Your task to perform on an android device: Go to privacy settings Image 0: 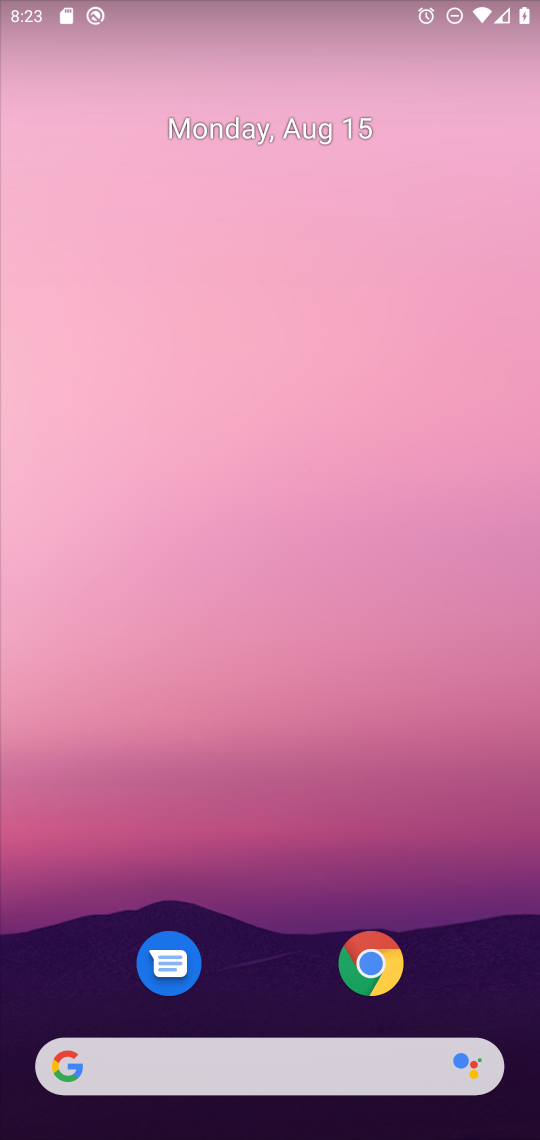
Step 0: drag from (280, 1012) to (246, 0)
Your task to perform on an android device: Go to privacy settings Image 1: 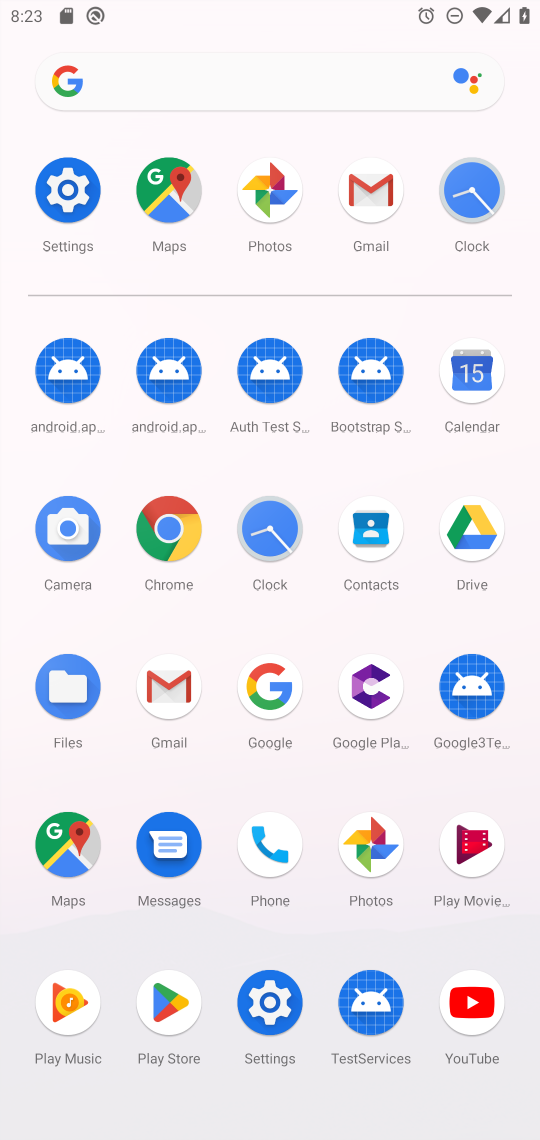
Step 1: click (85, 200)
Your task to perform on an android device: Go to privacy settings Image 2: 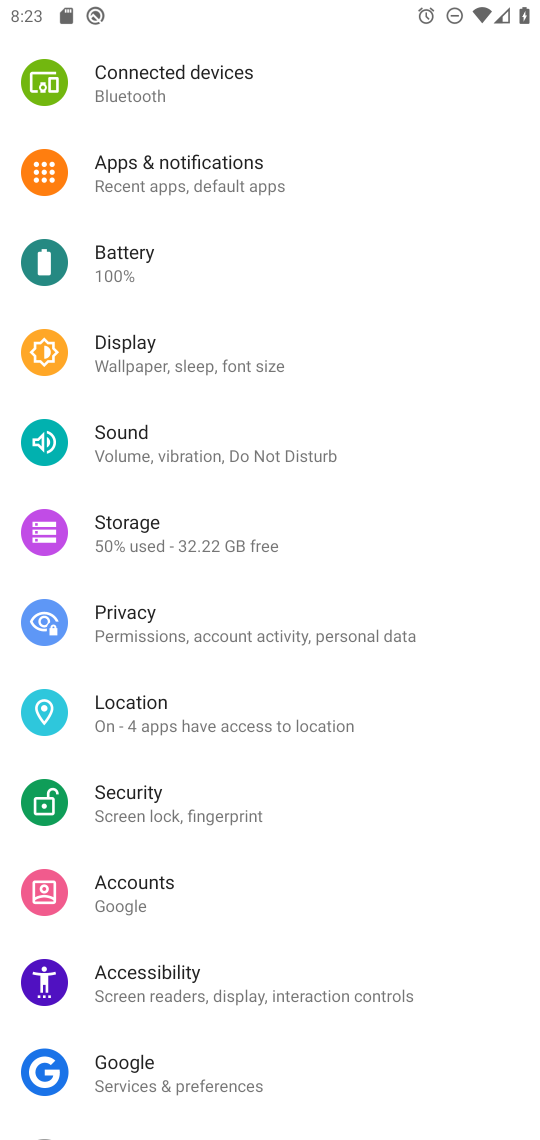
Step 2: click (207, 625)
Your task to perform on an android device: Go to privacy settings Image 3: 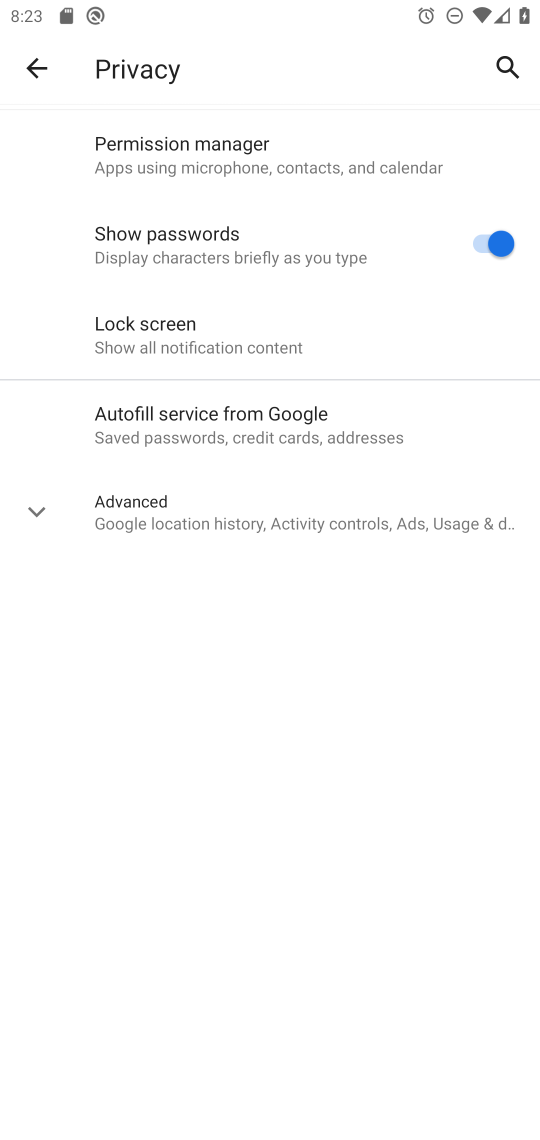
Step 3: task complete